Your task to perform on an android device: open app "Yahoo Mail" Image 0: 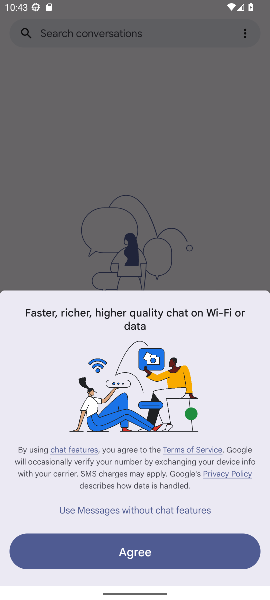
Step 0: press home button
Your task to perform on an android device: open app "Yahoo Mail" Image 1: 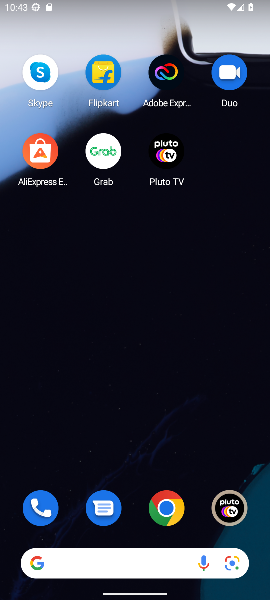
Step 1: drag from (136, 546) to (134, 160)
Your task to perform on an android device: open app "Yahoo Mail" Image 2: 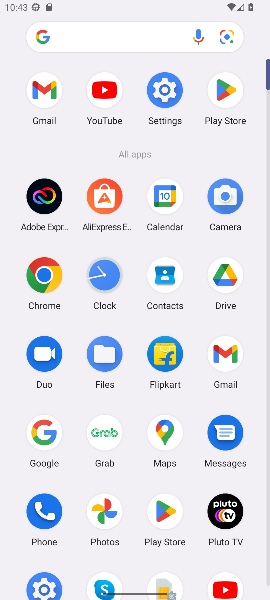
Step 2: click (222, 90)
Your task to perform on an android device: open app "Yahoo Mail" Image 3: 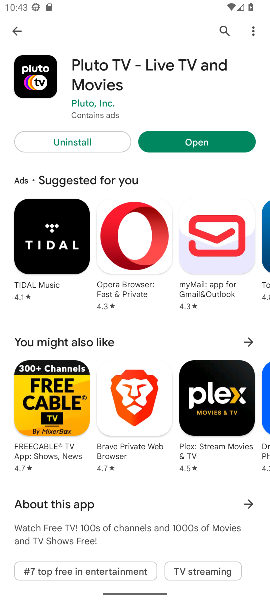
Step 3: click (216, 32)
Your task to perform on an android device: open app "Yahoo Mail" Image 4: 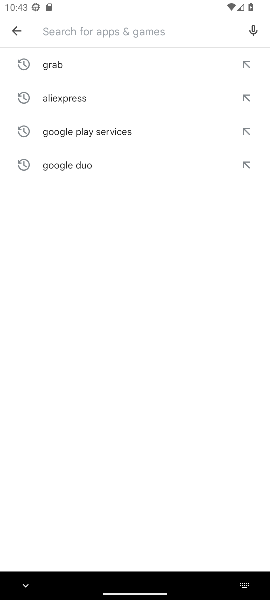
Step 4: type "Yahoo Mail"
Your task to perform on an android device: open app "Yahoo Mail" Image 5: 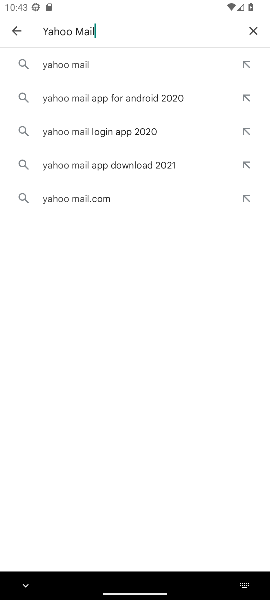
Step 5: click (43, 65)
Your task to perform on an android device: open app "Yahoo Mail" Image 6: 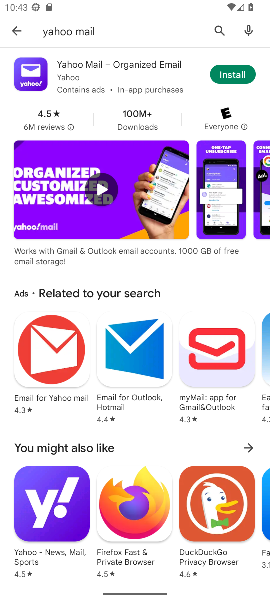
Step 6: click (231, 74)
Your task to perform on an android device: open app "Yahoo Mail" Image 7: 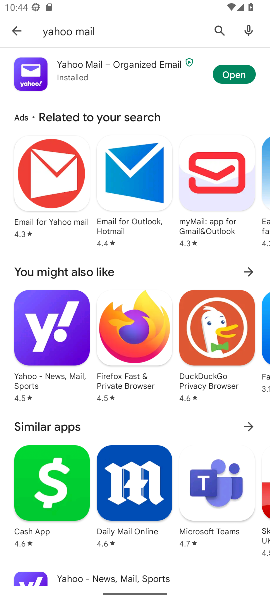
Step 7: click (237, 77)
Your task to perform on an android device: open app "Yahoo Mail" Image 8: 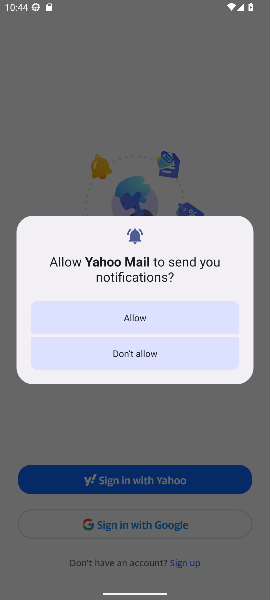
Step 8: task complete